Your task to perform on an android device: Open Google Chrome and click the shortcut for Amazon.com Image 0: 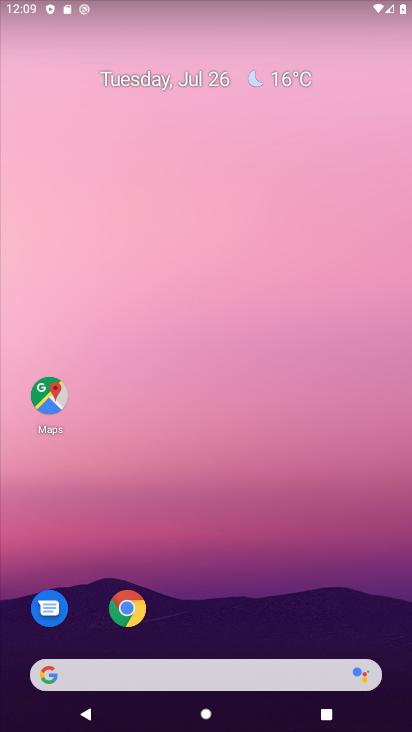
Step 0: drag from (283, 651) to (293, 123)
Your task to perform on an android device: Open Google Chrome and click the shortcut for Amazon.com Image 1: 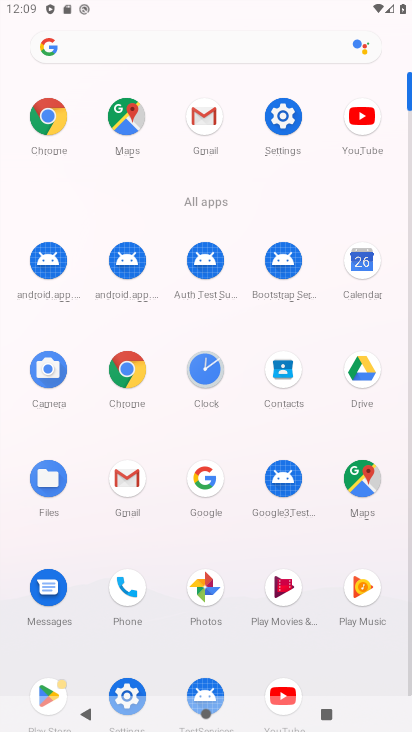
Step 1: click (258, 58)
Your task to perform on an android device: Open Google Chrome and click the shortcut for Amazon.com Image 2: 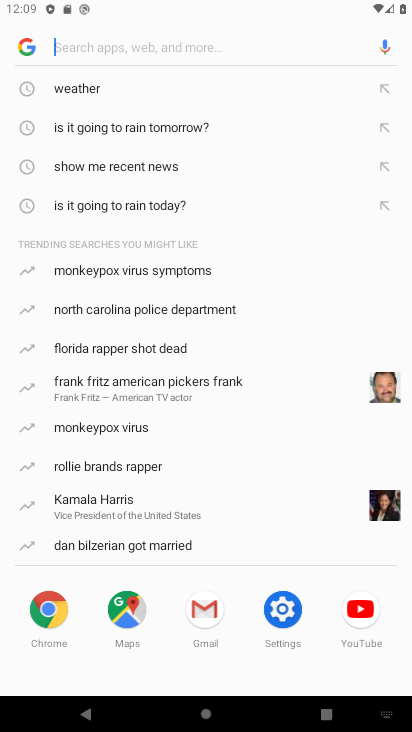
Step 2: type "amazon"
Your task to perform on an android device: Open Google Chrome and click the shortcut for Amazon.com Image 3: 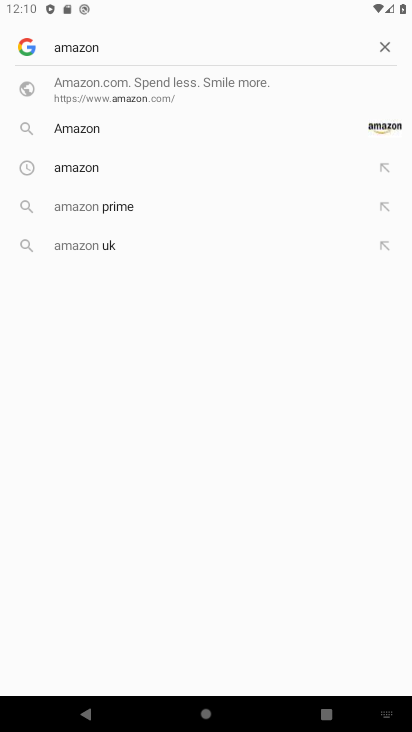
Step 3: click (160, 99)
Your task to perform on an android device: Open Google Chrome and click the shortcut for Amazon.com Image 4: 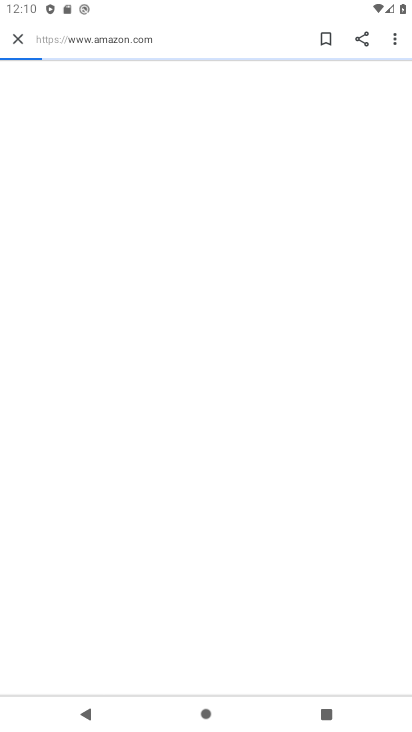
Step 4: task complete